Your task to perform on an android device: See recent photos Image 0: 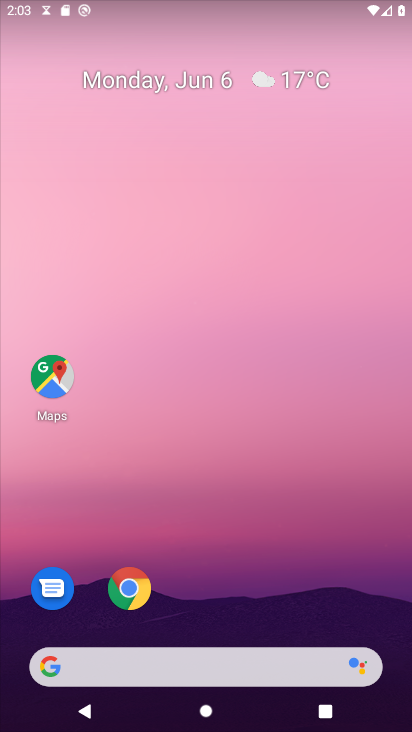
Step 0: drag from (190, 615) to (137, 47)
Your task to perform on an android device: See recent photos Image 1: 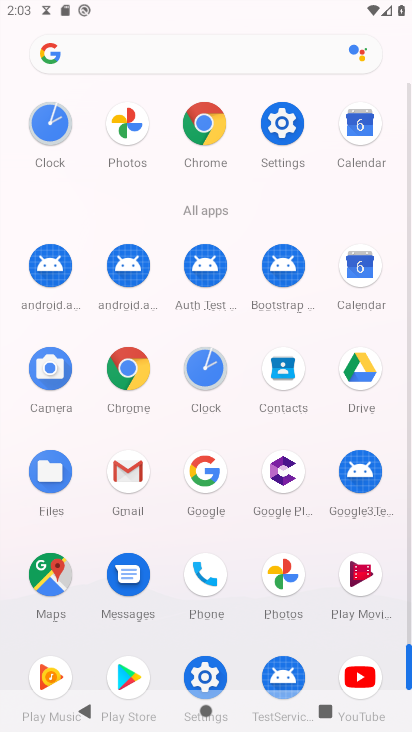
Step 1: click (284, 579)
Your task to perform on an android device: See recent photos Image 2: 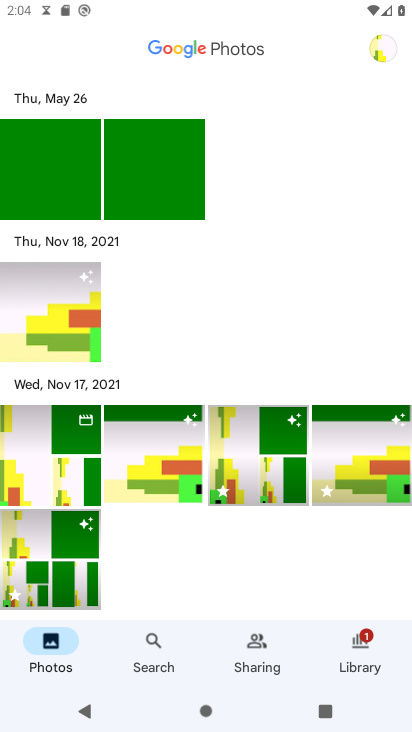
Step 2: click (357, 663)
Your task to perform on an android device: See recent photos Image 3: 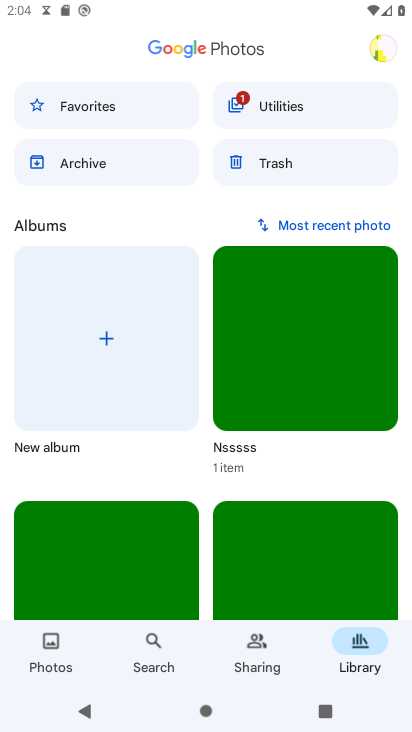
Step 3: task complete